Your task to perform on an android device: refresh tabs in the chrome app Image 0: 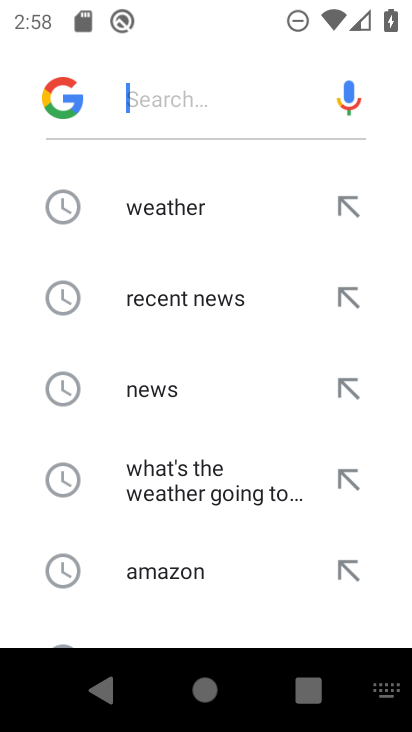
Step 0: press home button
Your task to perform on an android device: refresh tabs in the chrome app Image 1: 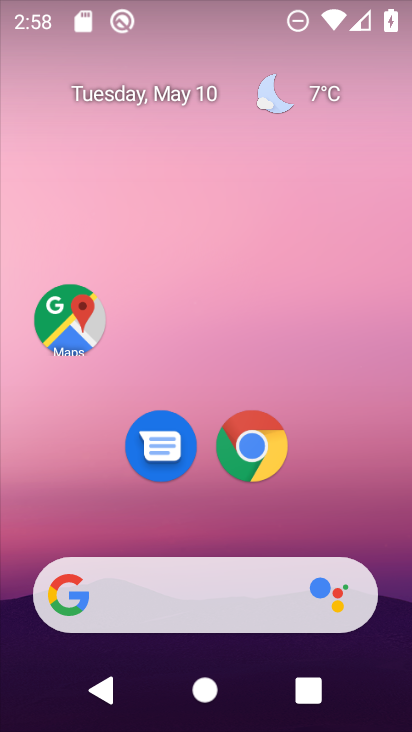
Step 1: click (253, 444)
Your task to perform on an android device: refresh tabs in the chrome app Image 2: 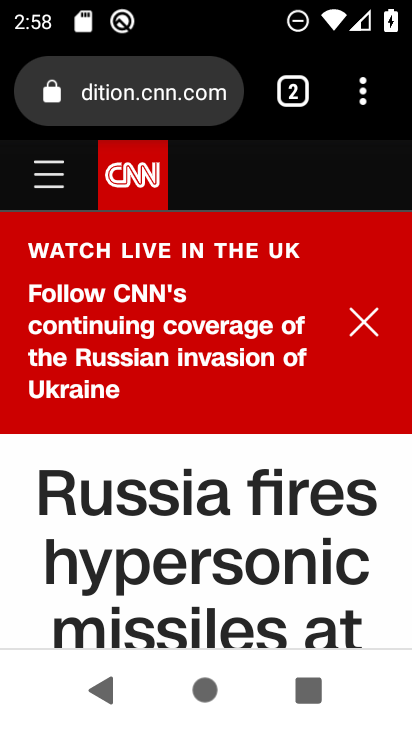
Step 2: click (363, 79)
Your task to perform on an android device: refresh tabs in the chrome app Image 3: 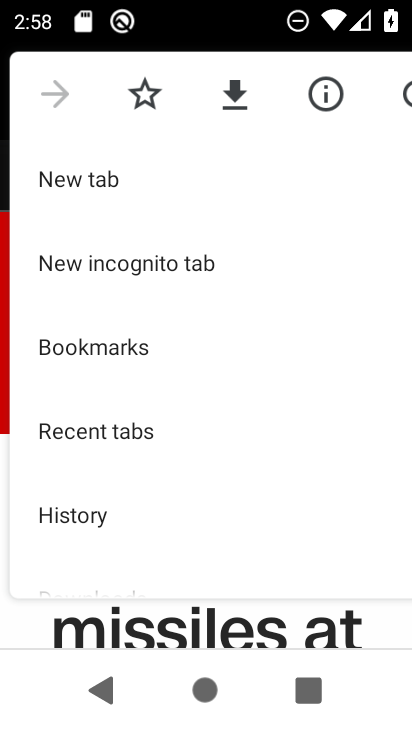
Step 3: click (129, 437)
Your task to perform on an android device: refresh tabs in the chrome app Image 4: 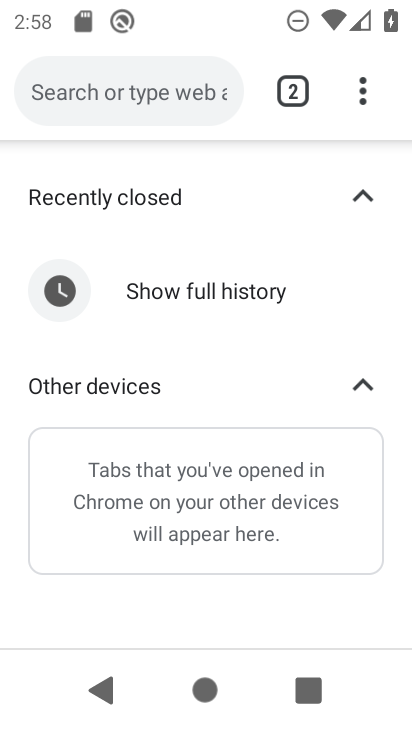
Step 4: task complete